Your task to perform on an android device: delete location history Image 0: 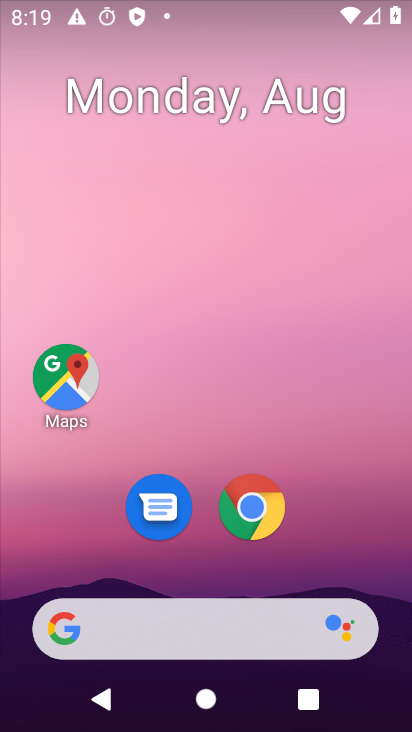
Step 0: click (73, 372)
Your task to perform on an android device: delete location history Image 1: 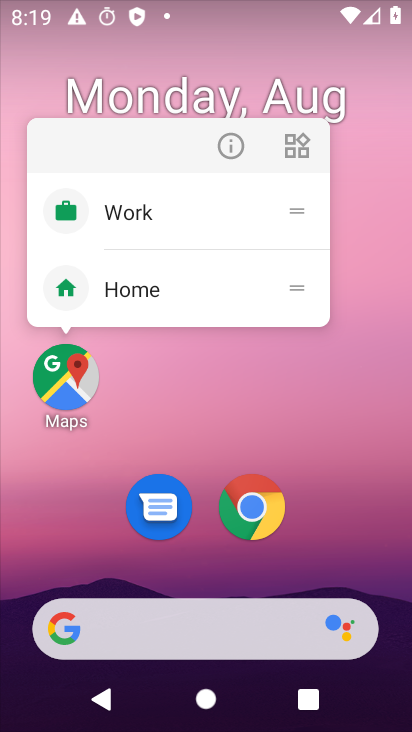
Step 1: click (64, 393)
Your task to perform on an android device: delete location history Image 2: 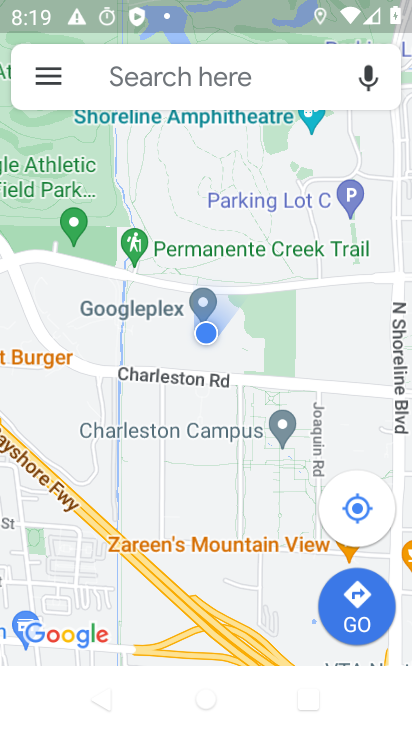
Step 2: click (54, 75)
Your task to perform on an android device: delete location history Image 3: 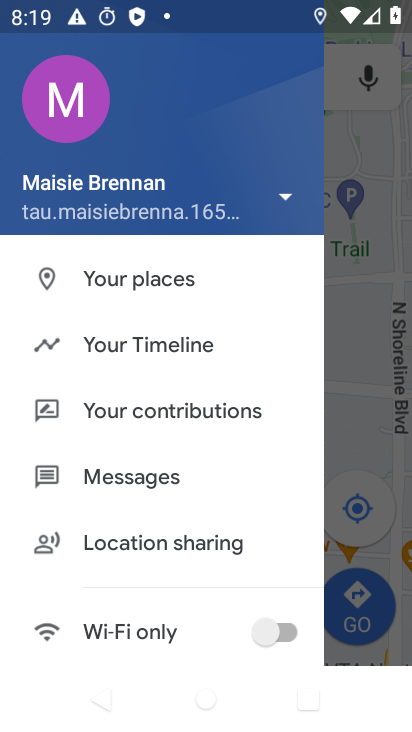
Step 3: click (150, 356)
Your task to perform on an android device: delete location history Image 4: 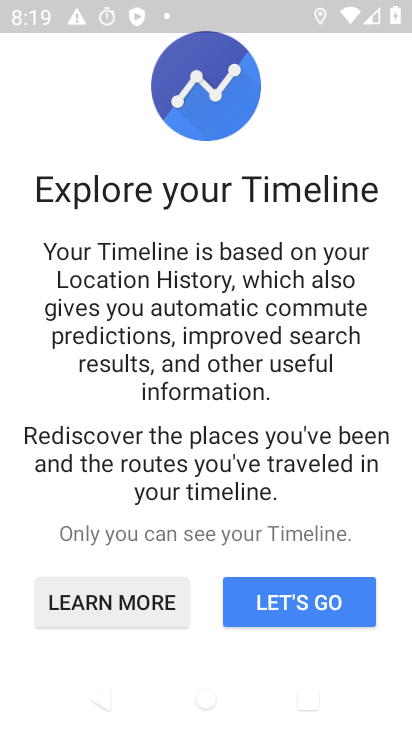
Step 4: click (290, 588)
Your task to perform on an android device: delete location history Image 5: 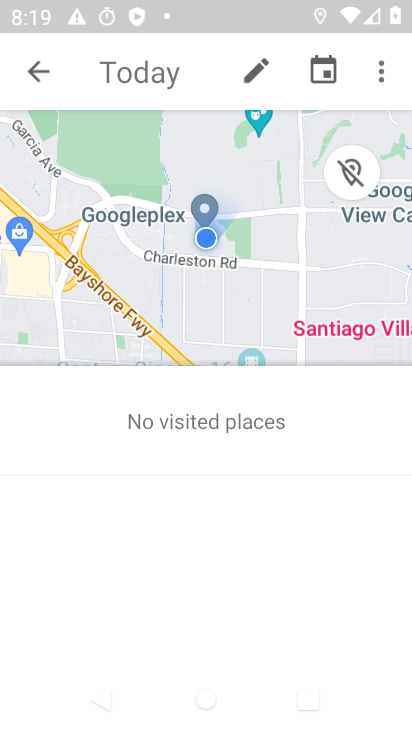
Step 5: click (382, 73)
Your task to perform on an android device: delete location history Image 6: 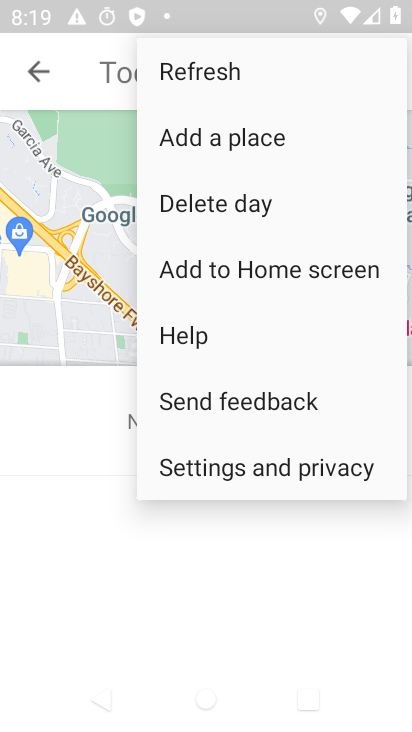
Step 6: click (264, 468)
Your task to perform on an android device: delete location history Image 7: 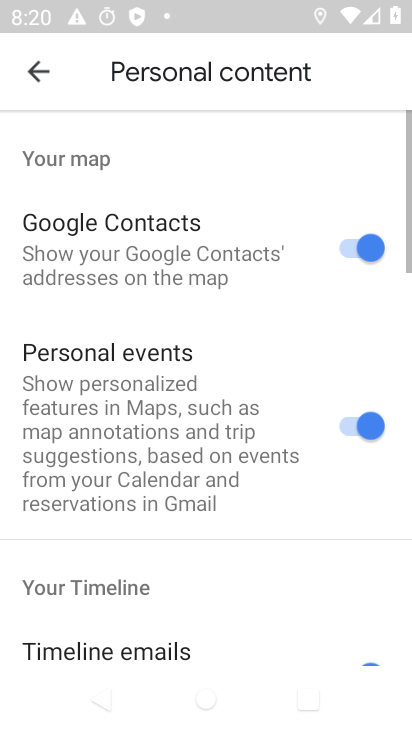
Step 7: drag from (222, 622) to (300, 137)
Your task to perform on an android device: delete location history Image 8: 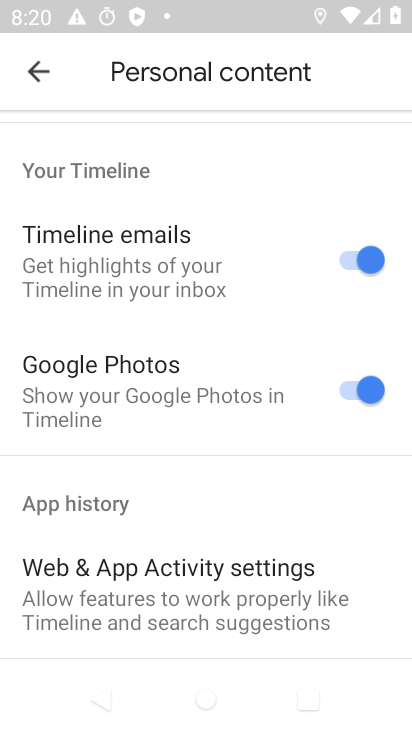
Step 8: drag from (216, 537) to (298, 71)
Your task to perform on an android device: delete location history Image 9: 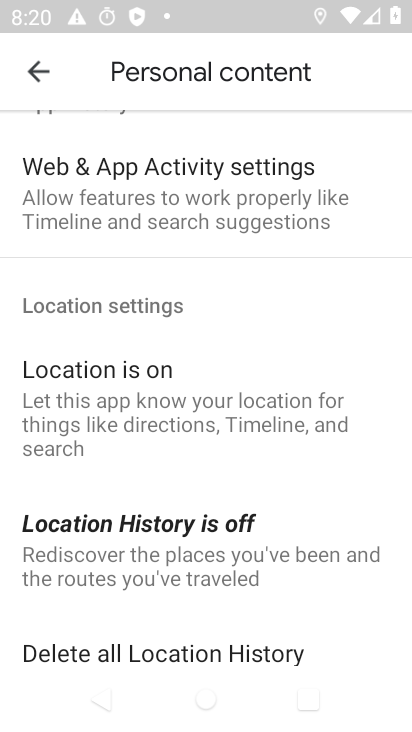
Step 9: drag from (264, 622) to (334, 223)
Your task to perform on an android device: delete location history Image 10: 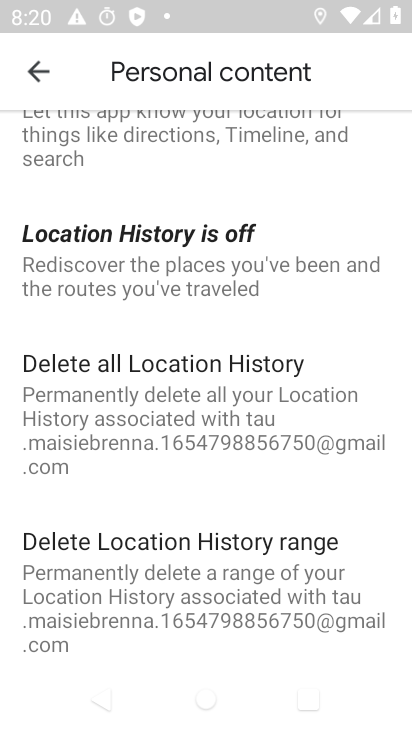
Step 10: click (194, 364)
Your task to perform on an android device: delete location history Image 11: 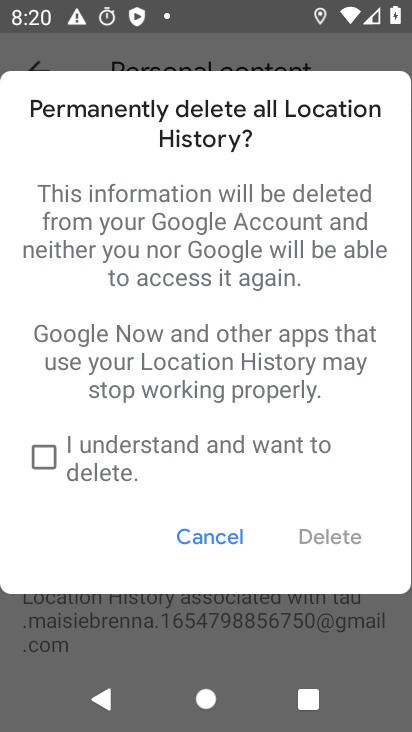
Step 11: click (42, 451)
Your task to perform on an android device: delete location history Image 12: 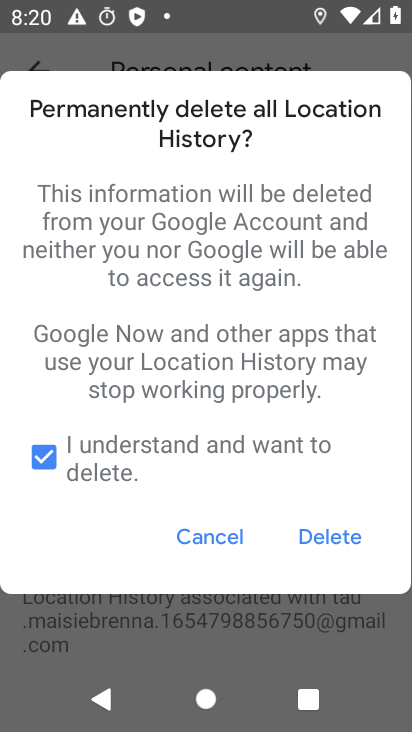
Step 12: click (343, 538)
Your task to perform on an android device: delete location history Image 13: 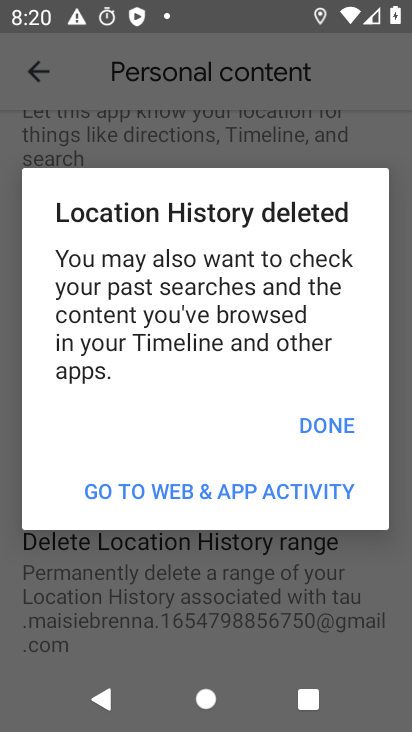
Step 13: click (324, 425)
Your task to perform on an android device: delete location history Image 14: 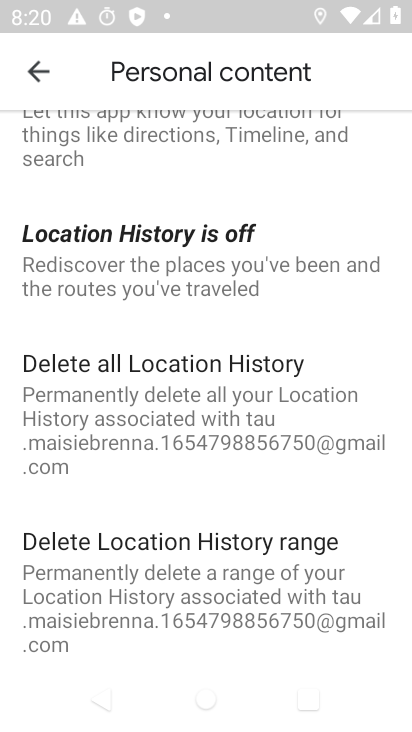
Step 14: task complete